Your task to perform on an android device: Open calendar and show me the fourth week of next month Image 0: 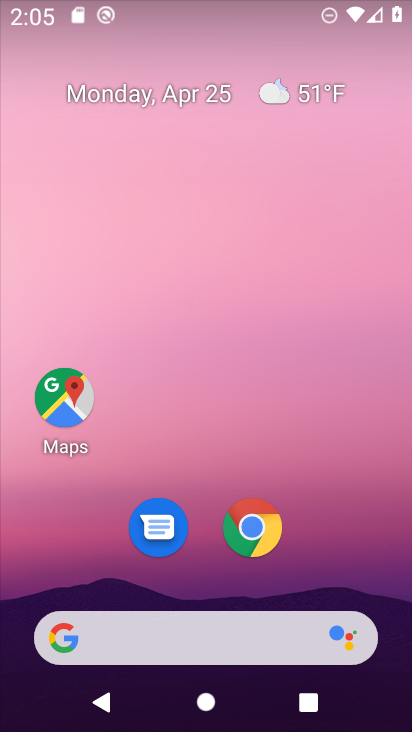
Step 0: drag from (351, 493) to (158, 1)
Your task to perform on an android device: Open calendar and show me the fourth week of next month Image 1: 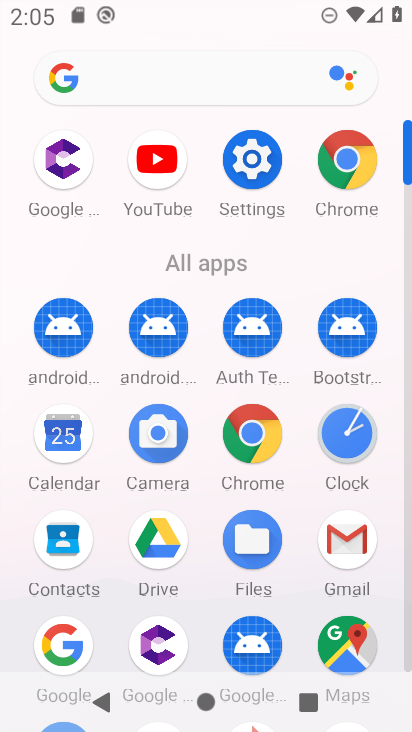
Step 1: drag from (15, 549) to (8, 257)
Your task to perform on an android device: Open calendar and show me the fourth week of next month Image 2: 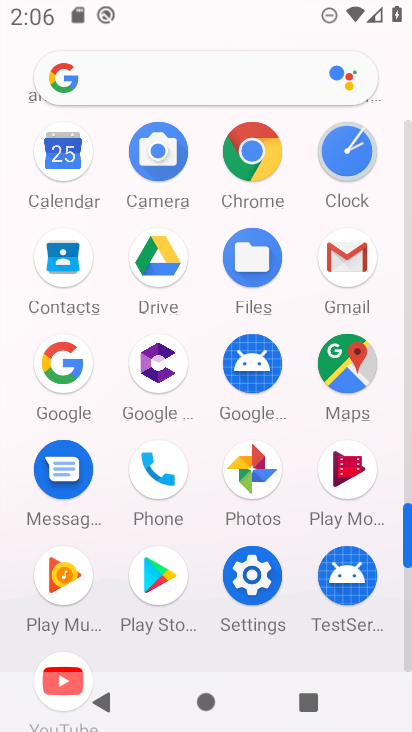
Step 2: click (12, 510)
Your task to perform on an android device: Open calendar and show me the fourth week of next month Image 3: 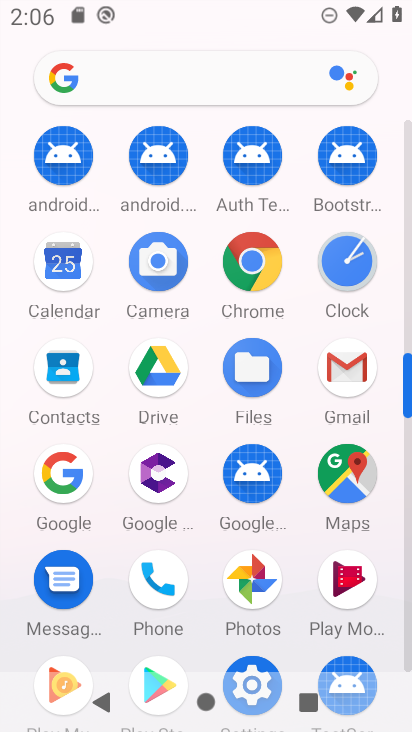
Step 3: click (73, 261)
Your task to perform on an android device: Open calendar and show me the fourth week of next month Image 4: 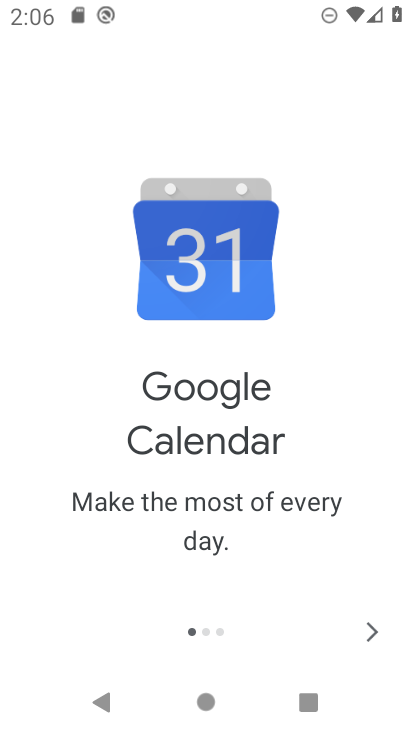
Step 4: click (363, 629)
Your task to perform on an android device: Open calendar and show me the fourth week of next month Image 5: 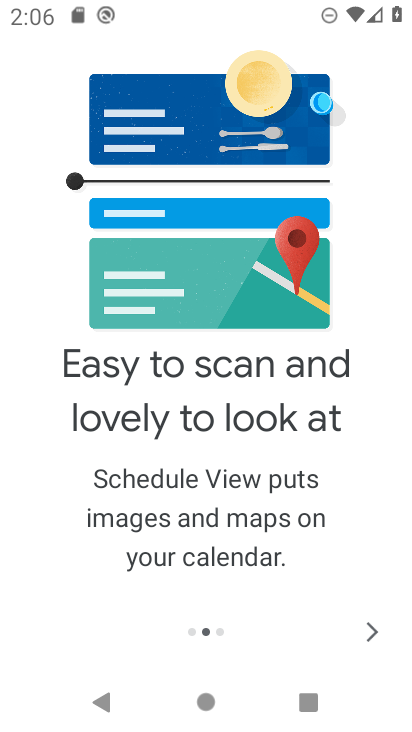
Step 5: click (371, 636)
Your task to perform on an android device: Open calendar and show me the fourth week of next month Image 6: 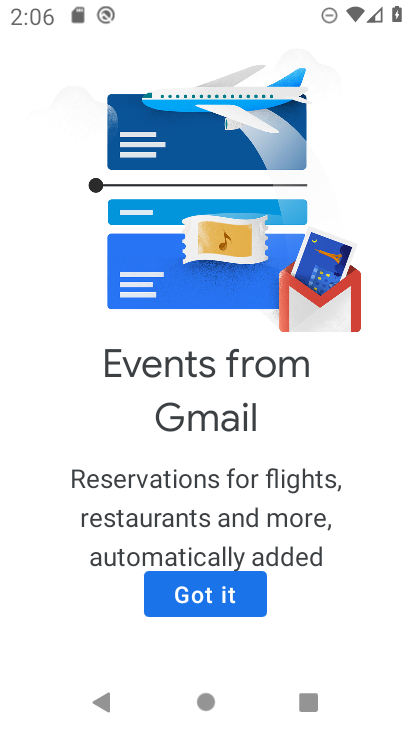
Step 6: click (221, 589)
Your task to perform on an android device: Open calendar and show me the fourth week of next month Image 7: 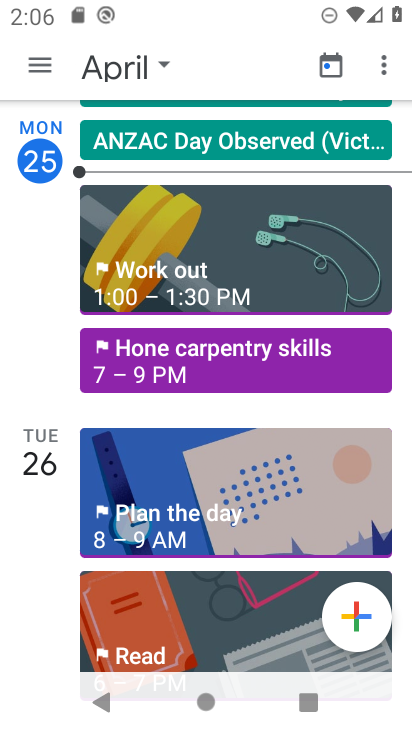
Step 7: click (40, 57)
Your task to perform on an android device: Open calendar and show me the fourth week of next month Image 8: 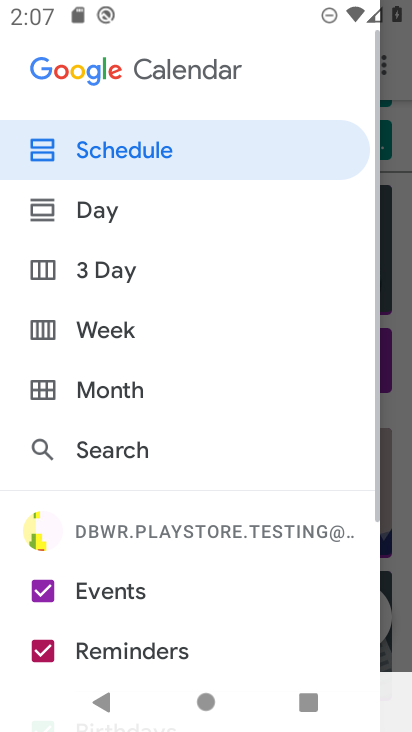
Step 8: click (123, 389)
Your task to perform on an android device: Open calendar and show me the fourth week of next month Image 9: 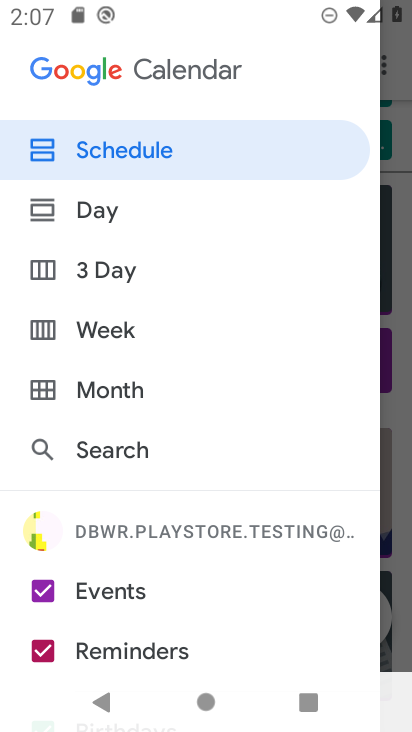
Step 9: click (123, 389)
Your task to perform on an android device: Open calendar and show me the fourth week of next month Image 10: 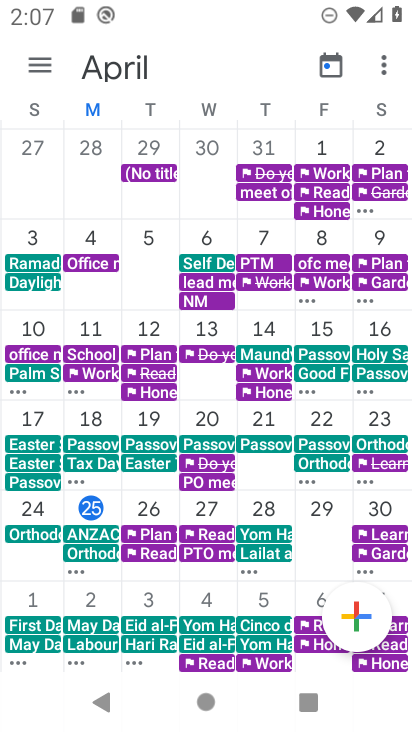
Step 10: drag from (398, 409) to (0, 363)
Your task to perform on an android device: Open calendar and show me the fourth week of next month Image 11: 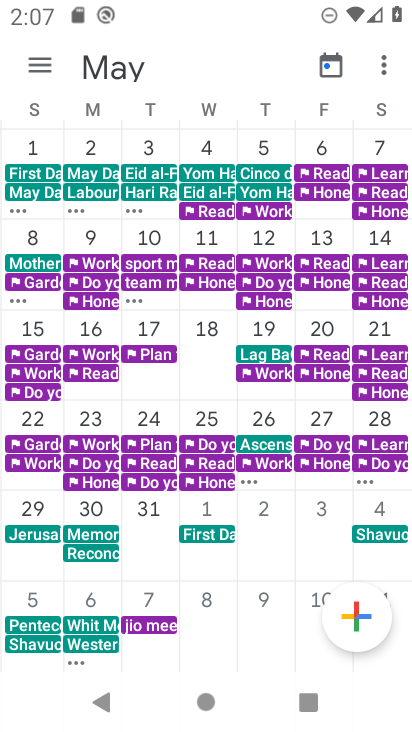
Step 11: click (33, 417)
Your task to perform on an android device: Open calendar and show me the fourth week of next month Image 12: 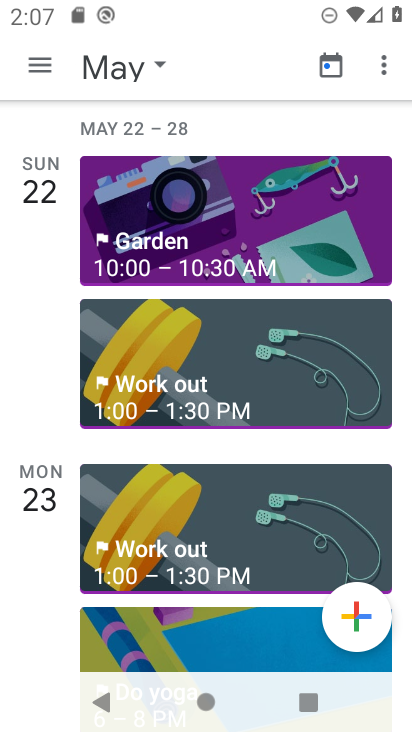
Step 12: click (41, 47)
Your task to perform on an android device: Open calendar and show me the fourth week of next month Image 13: 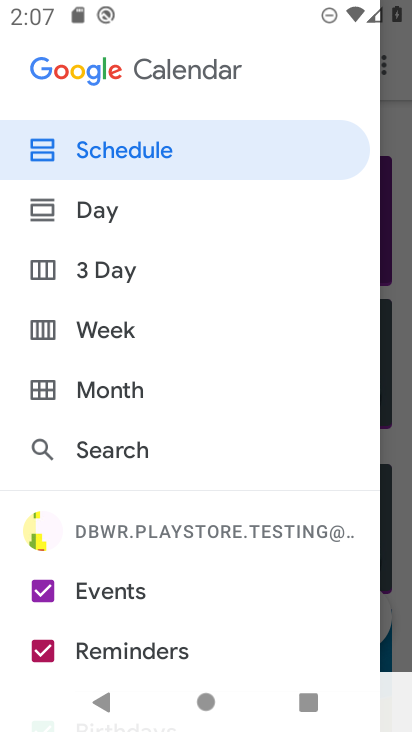
Step 13: click (102, 343)
Your task to perform on an android device: Open calendar and show me the fourth week of next month Image 14: 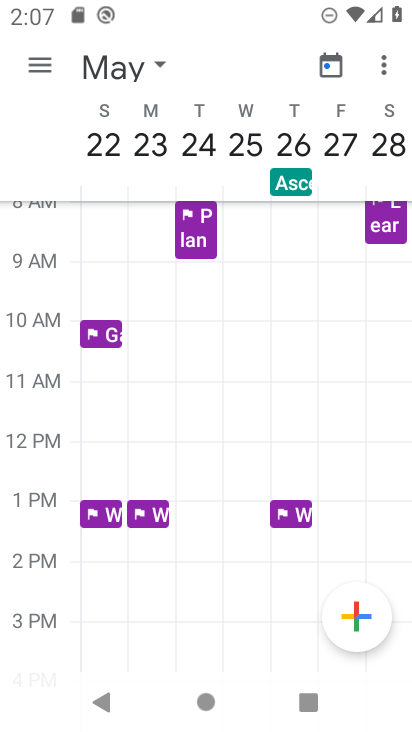
Step 14: task complete